Your task to perform on an android device: Open location settings Image 0: 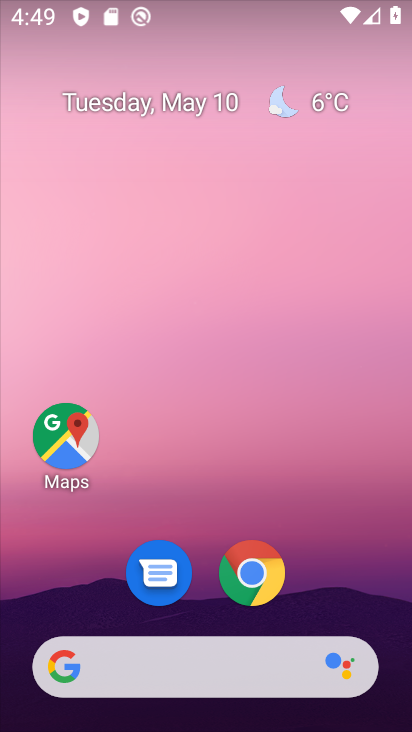
Step 0: drag from (195, 624) to (303, 100)
Your task to perform on an android device: Open location settings Image 1: 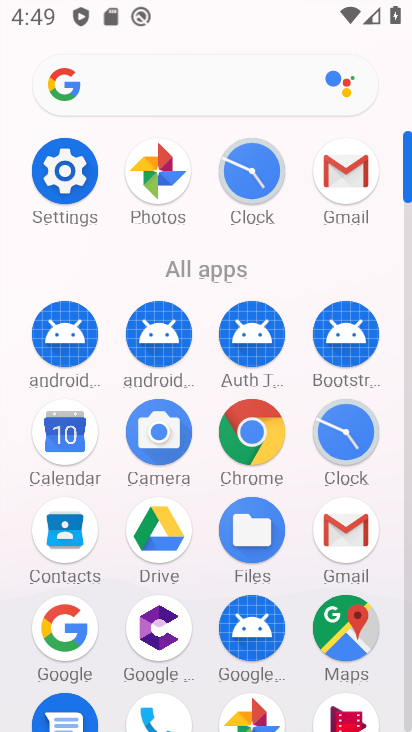
Step 1: drag from (226, 617) to (274, 371)
Your task to perform on an android device: Open location settings Image 2: 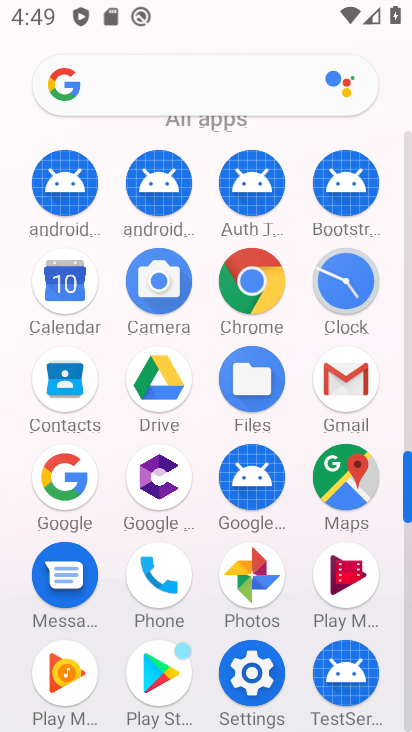
Step 2: click (244, 675)
Your task to perform on an android device: Open location settings Image 3: 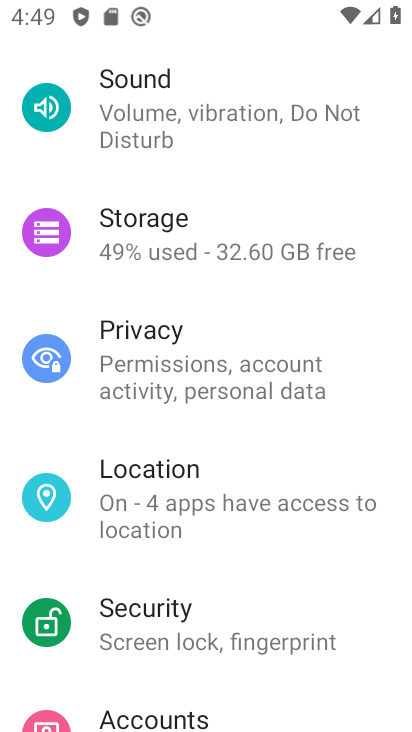
Step 3: click (178, 472)
Your task to perform on an android device: Open location settings Image 4: 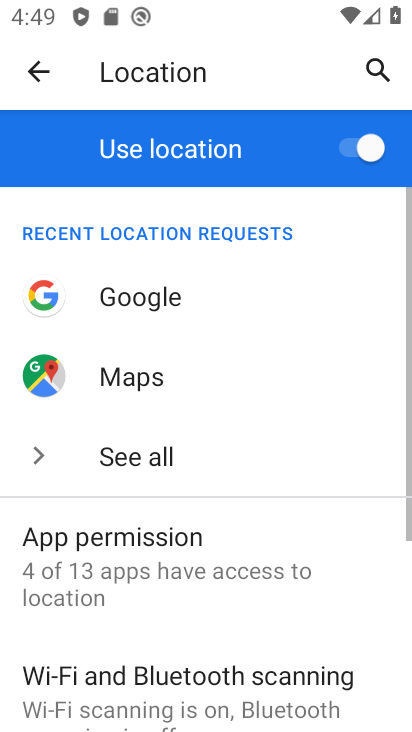
Step 4: task complete